Your task to perform on an android device: Check the weather Image 0: 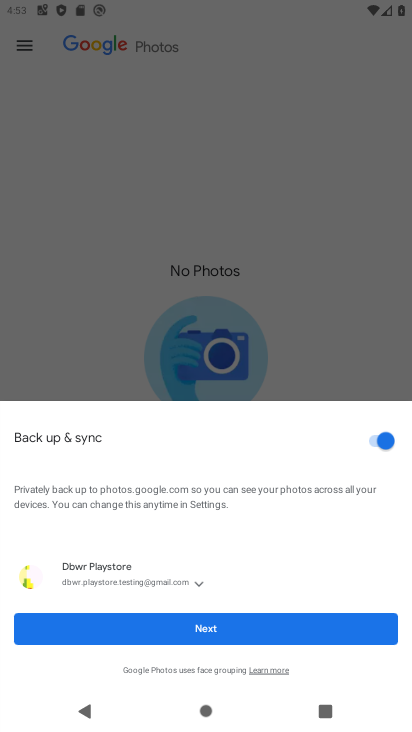
Step 0: press back button
Your task to perform on an android device: Check the weather Image 1: 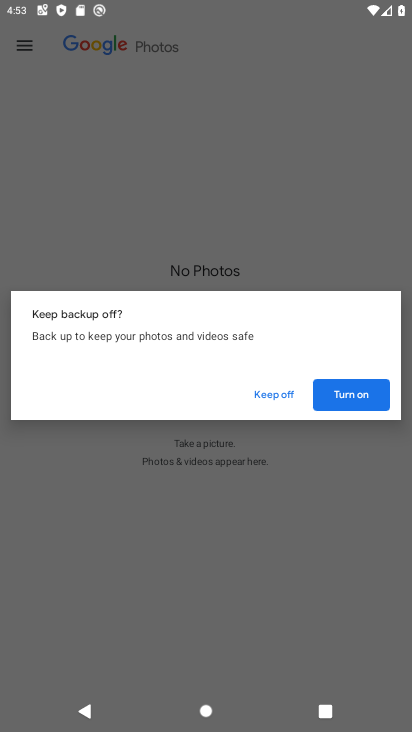
Step 1: press home button
Your task to perform on an android device: Check the weather Image 2: 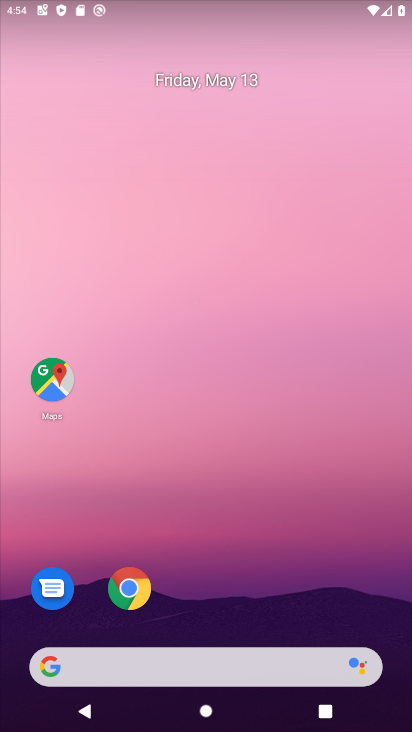
Step 2: drag from (196, 630) to (285, 244)
Your task to perform on an android device: Check the weather Image 3: 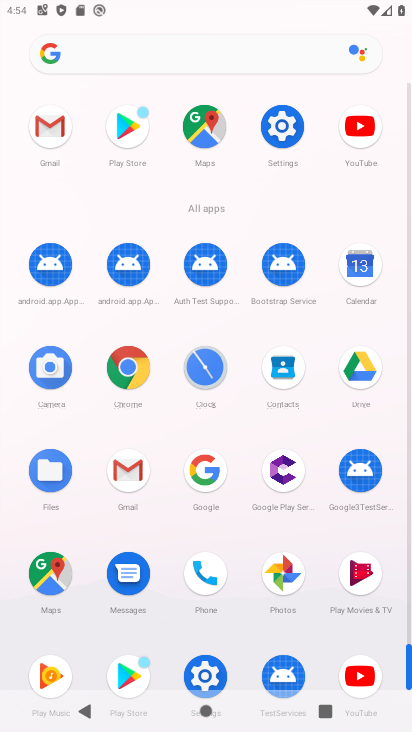
Step 3: click (203, 464)
Your task to perform on an android device: Check the weather Image 4: 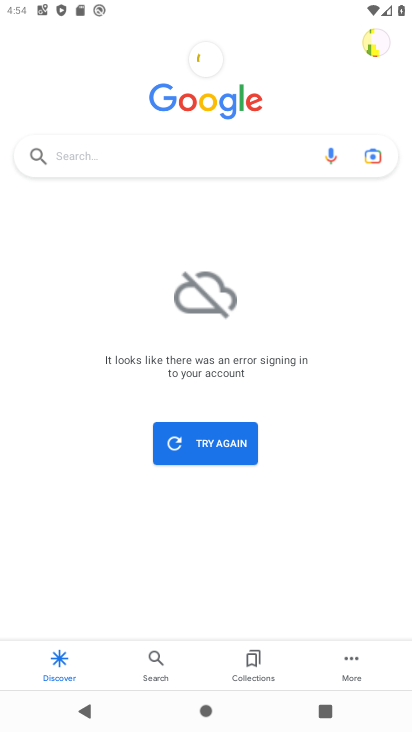
Step 4: click (224, 154)
Your task to perform on an android device: Check the weather Image 5: 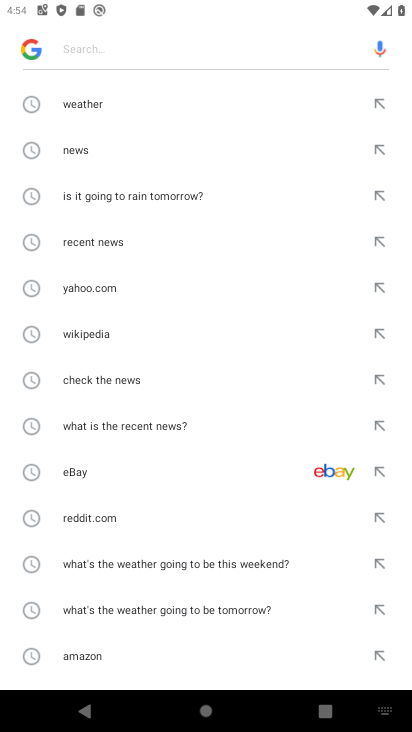
Step 5: click (181, 114)
Your task to perform on an android device: Check the weather Image 6: 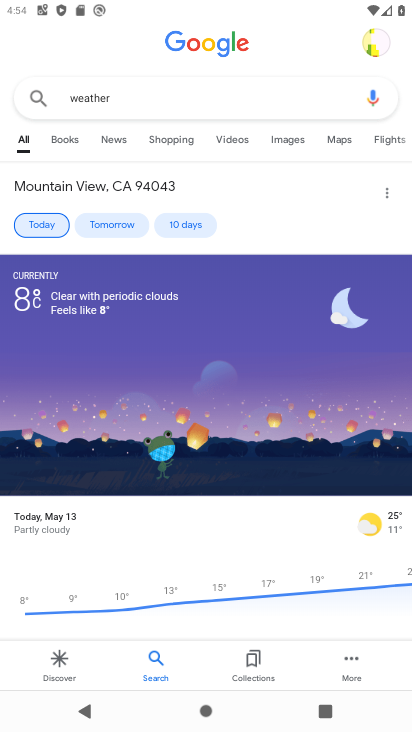
Step 6: task complete